Your task to perform on an android device: Search for pizza restaurants on Maps Image 0: 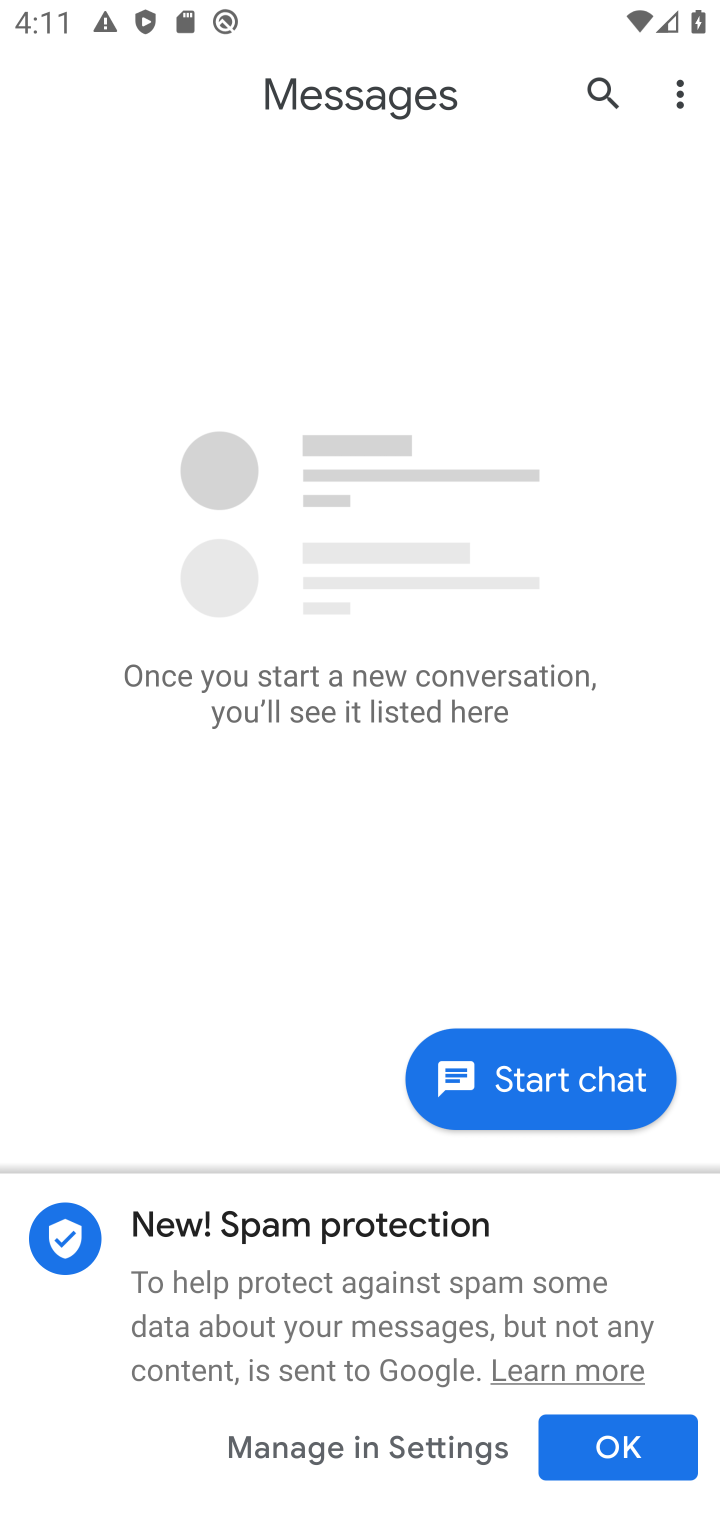
Step 0: press home button
Your task to perform on an android device: Search for pizza restaurants on Maps Image 1: 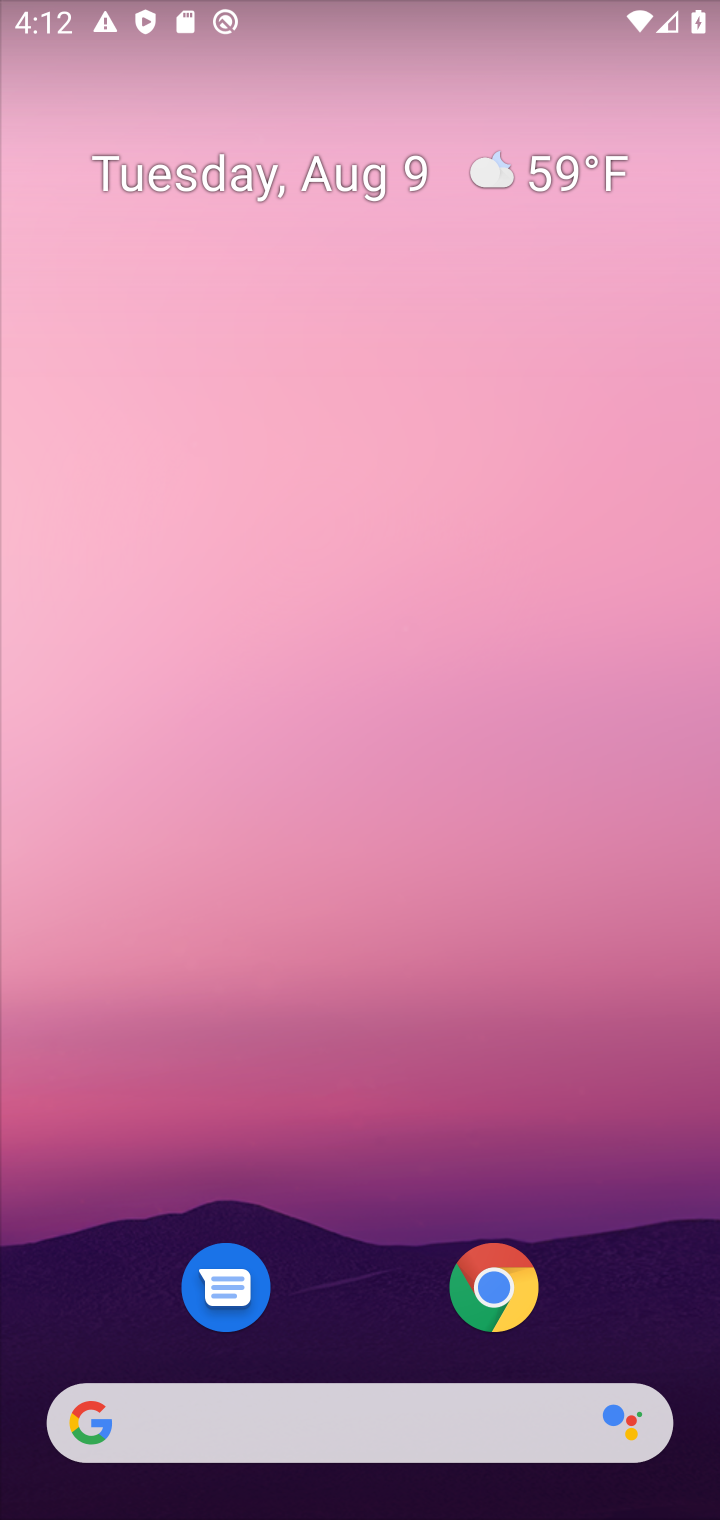
Step 1: drag from (358, 748) to (350, 178)
Your task to perform on an android device: Search for pizza restaurants on Maps Image 2: 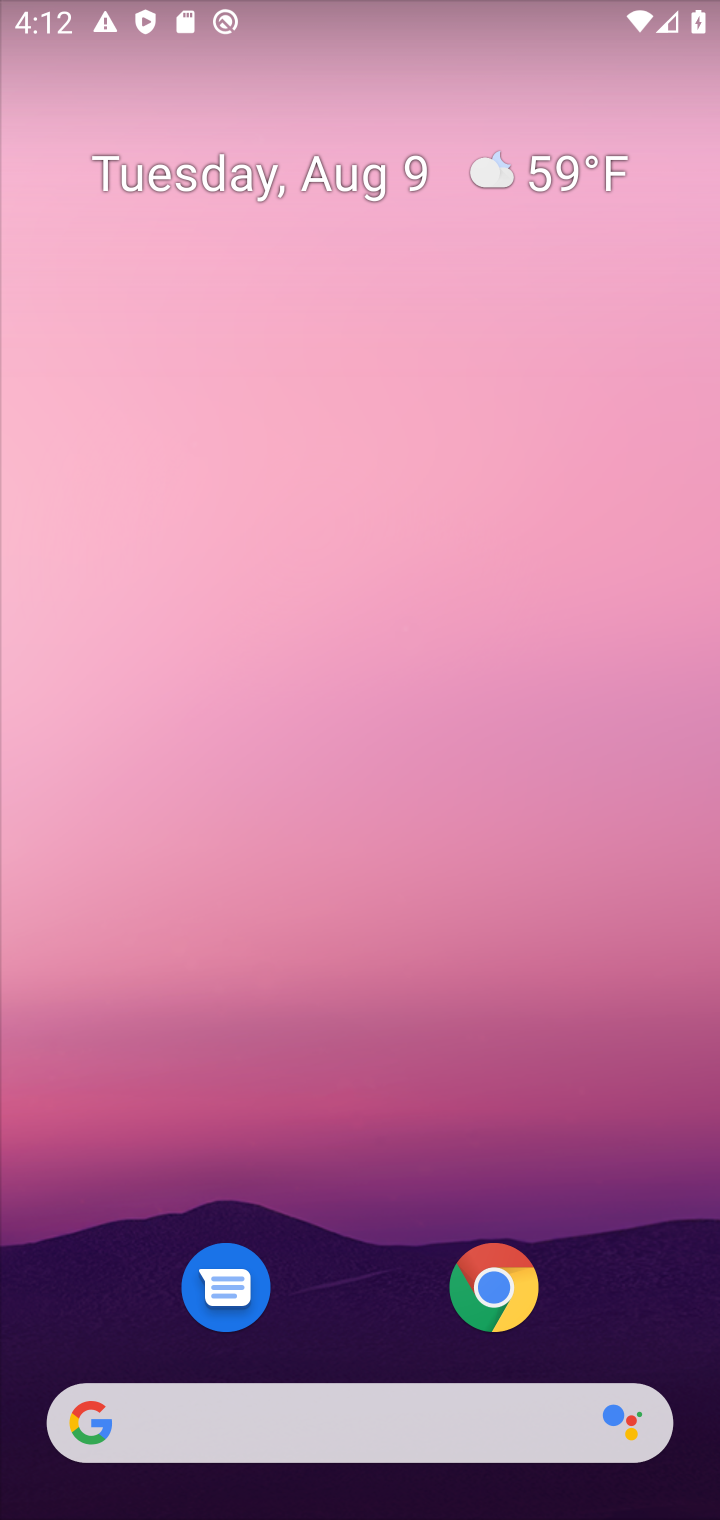
Step 2: drag from (361, 547) to (387, 272)
Your task to perform on an android device: Search for pizza restaurants on Maps Image 3: 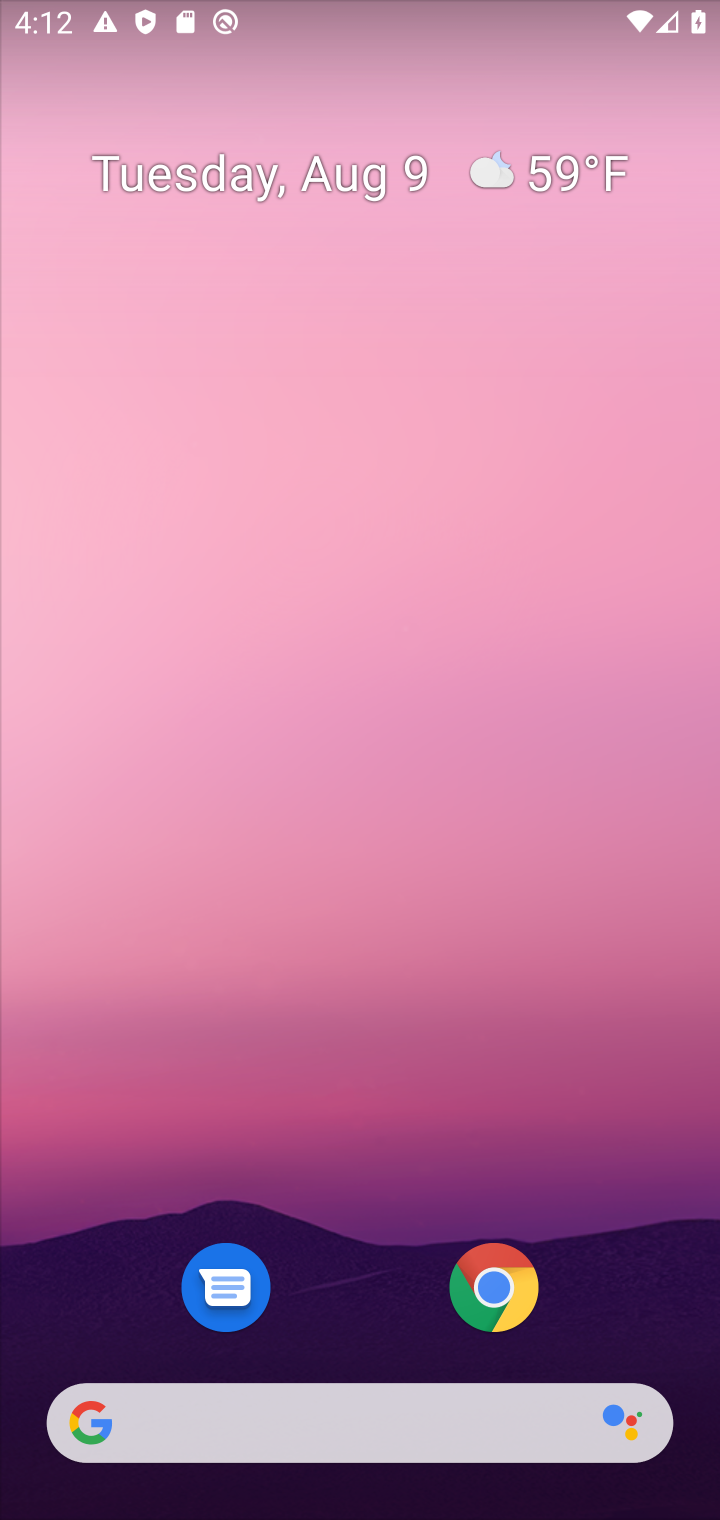
Step 3: drag from (344, 1171) to (432, 145)
Your task to perform on an android device: Search for pizza restaurants on Maps Image 4: 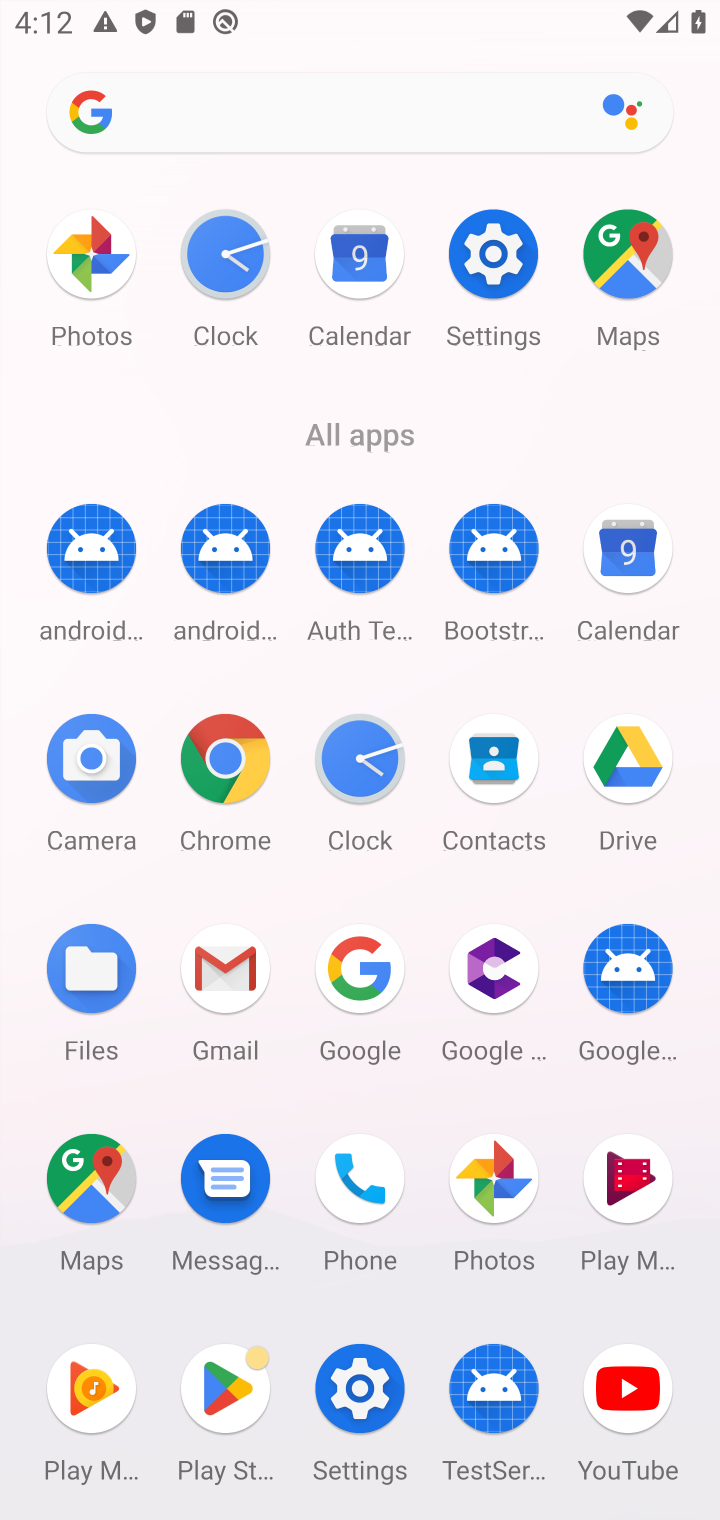
Step 4: click (607, 289)
Your task to perform on an android device: Search for pizza restaurants on Maps Image 5: 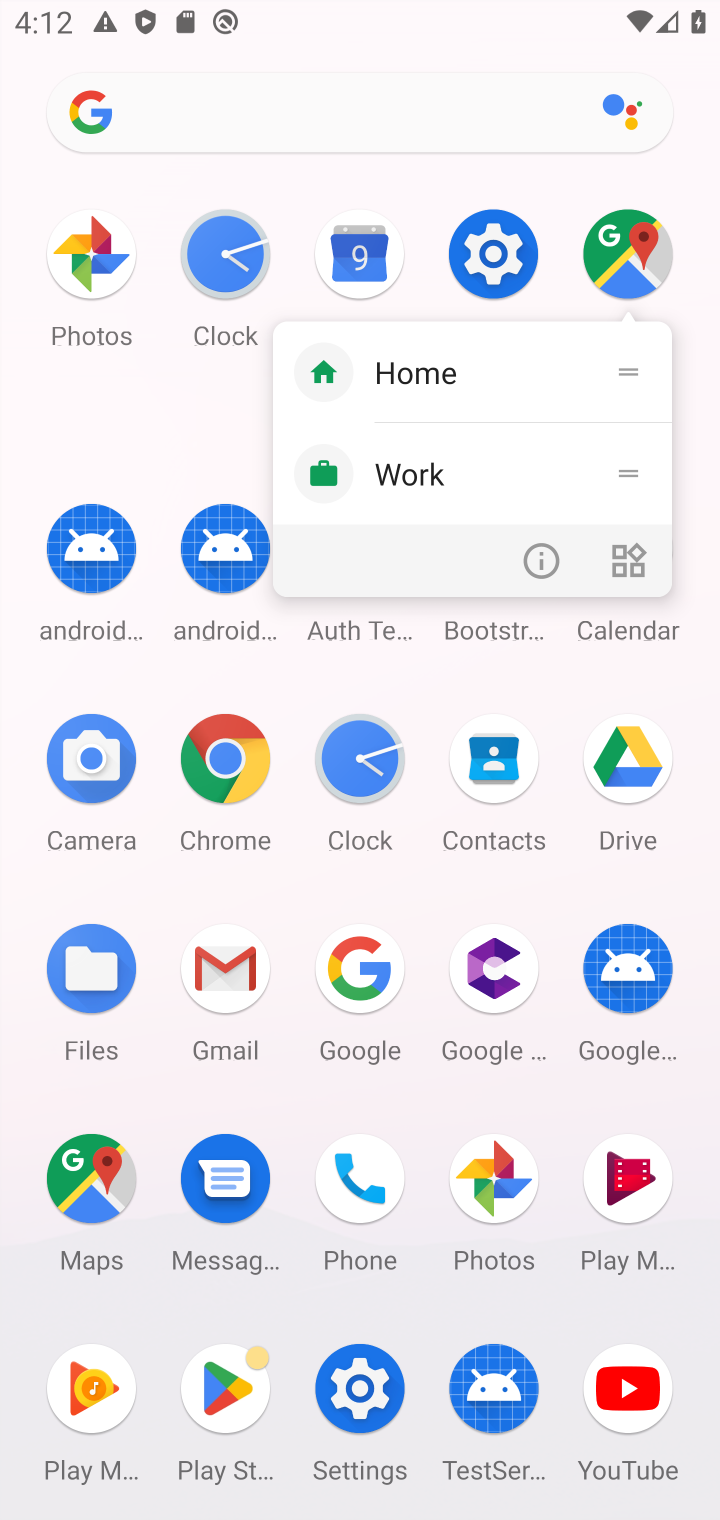
Step 5: click (628, 235)
Your task to perform on an android device: Search for pizza restaurants on Maps Image 6: 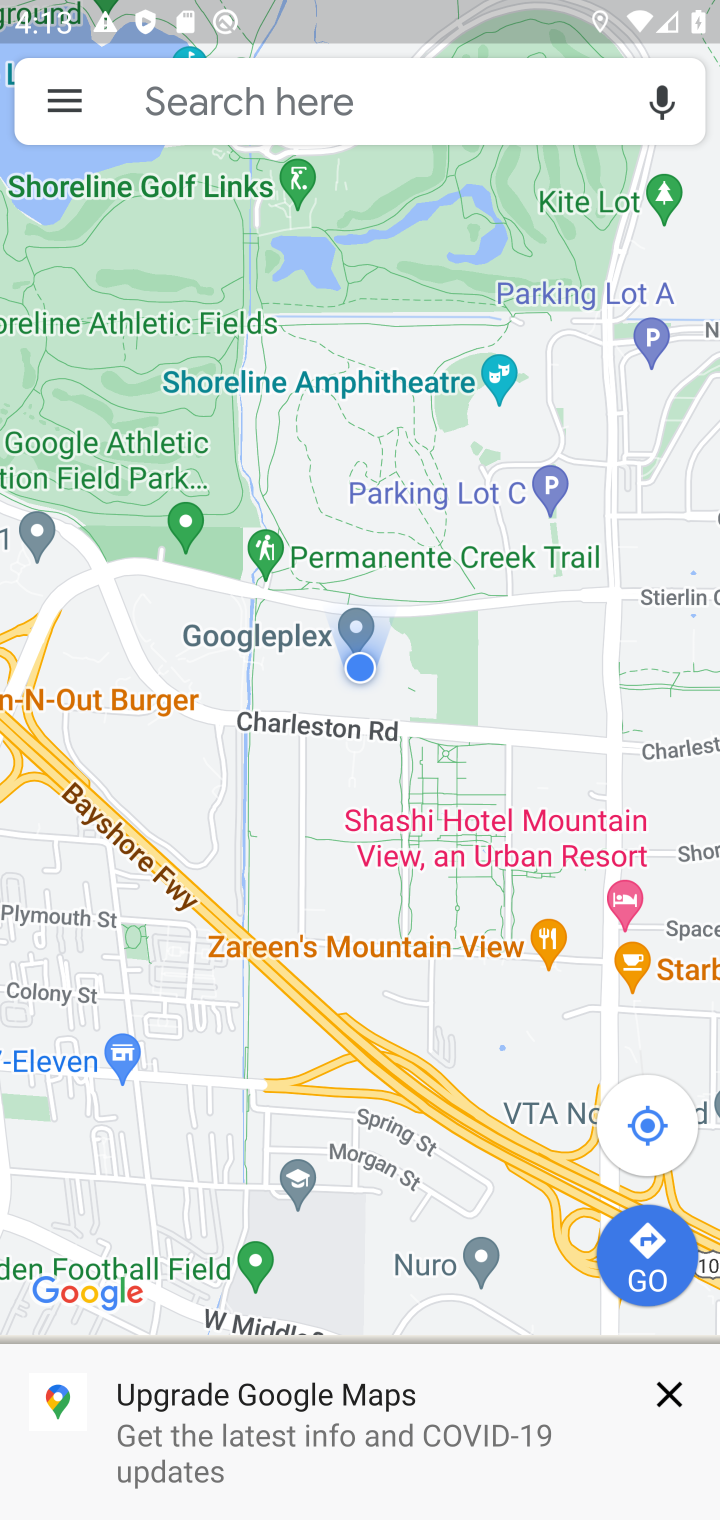
Step 6: type "pizza restaurants "
Your task to perform on an android device: Search for pizza restaurants on Maps Image 7: 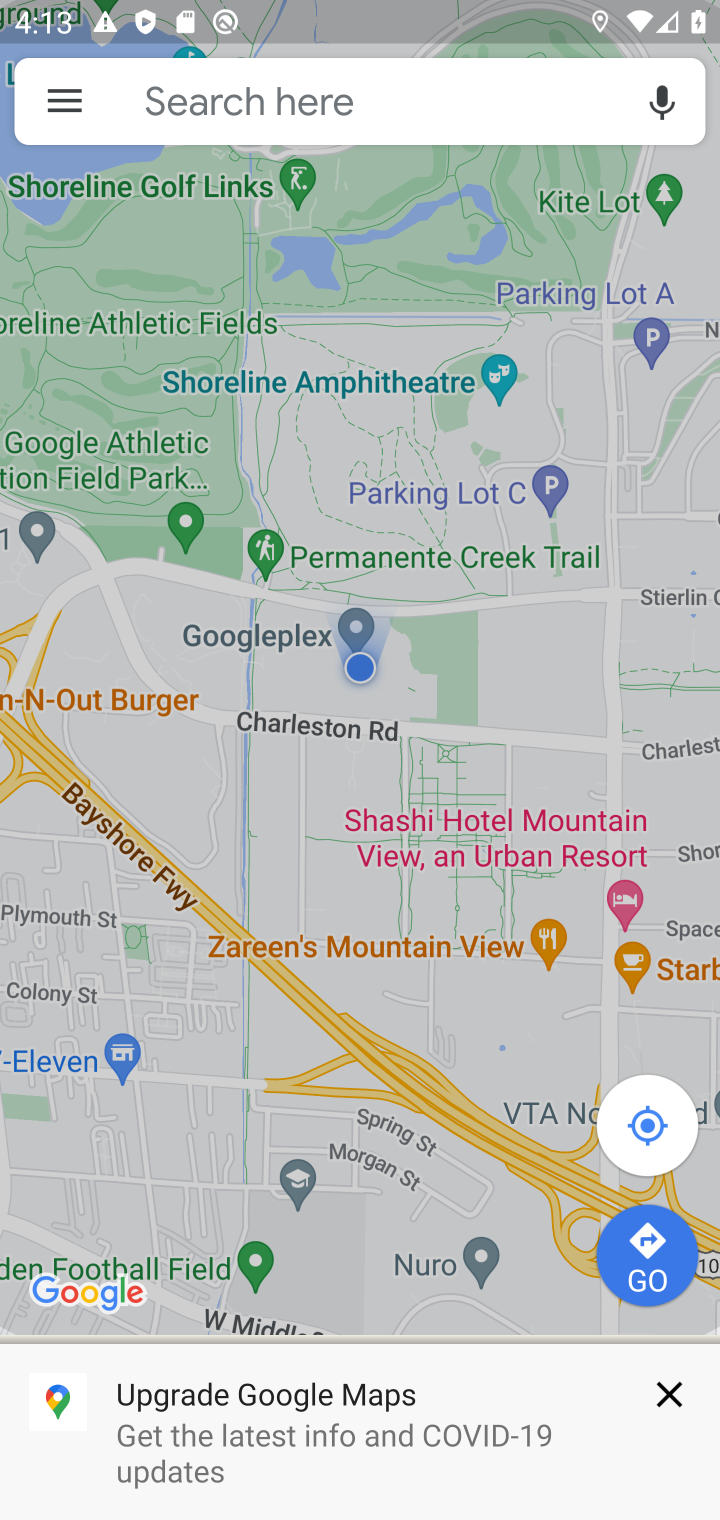
Step 7: task complete